Your task to perform on an android device: Open maps Image 0: 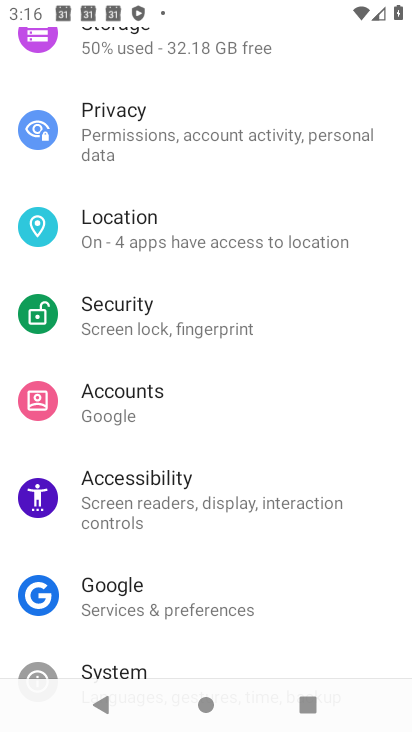
Step 0: press home button
Your task to perform on an android device: Open maps Image 1: 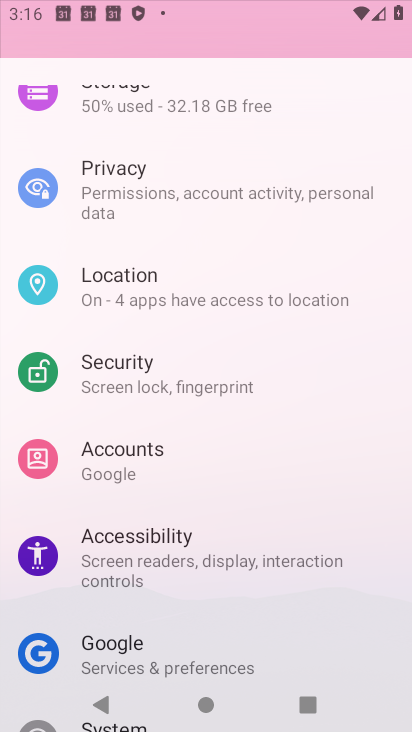
Step 1: drag from (206, 590) to (231, 436)
Your task to perform on an android device: Open maps Image 2: 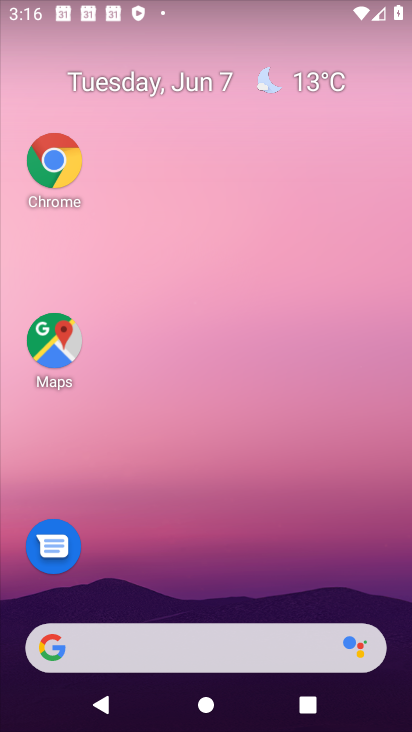
Step 2: click (63, 328)
Your task to perform on an android device: Open maps Image 3: 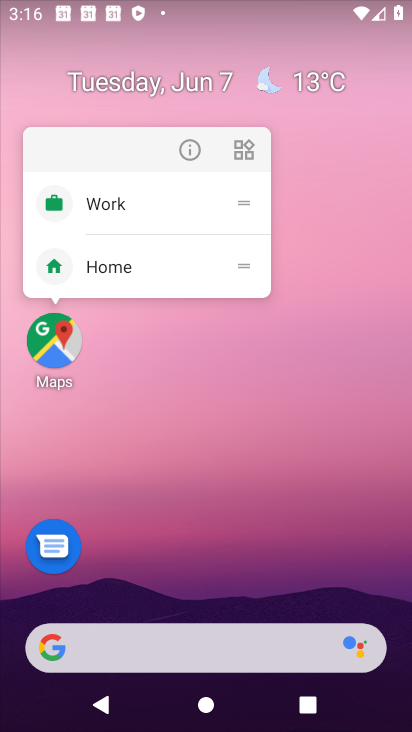
Step 3: click (203, 166)
Your task to perform on an android device: Open maps Image 4: 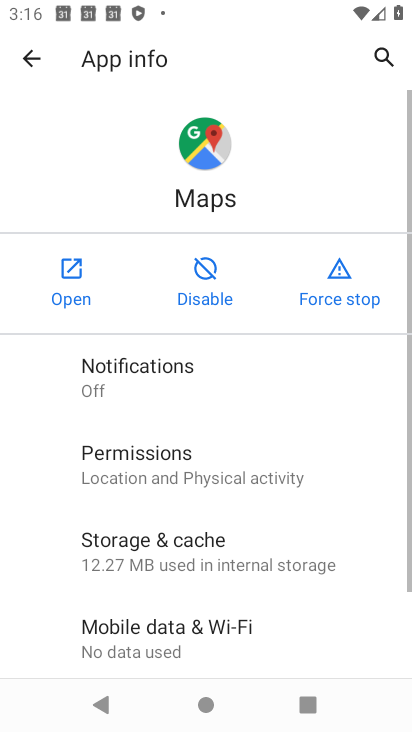
Step 4: click (83, 306)
Your task to perform on an android device: Open maps Image 5: 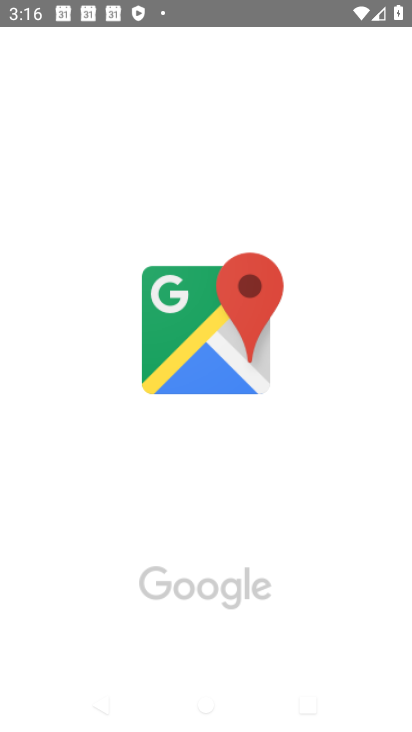
Step 5: task complete